Your task to perform on an android device: install app "Indeed Job Search" Image 0: 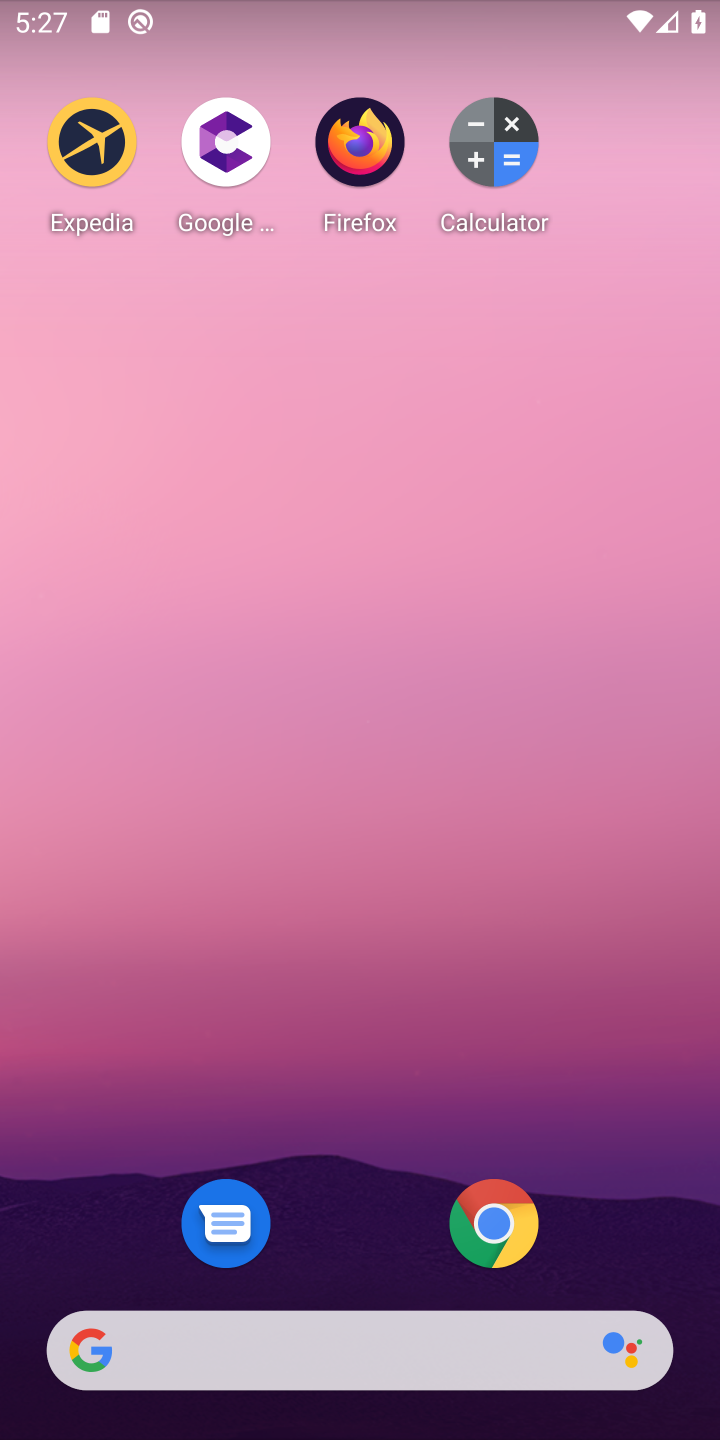
Step 0: drag from (375, 1330) to (362, 3)
Your task to perform on an android device: install app "Indeed Job Search" Image 1: 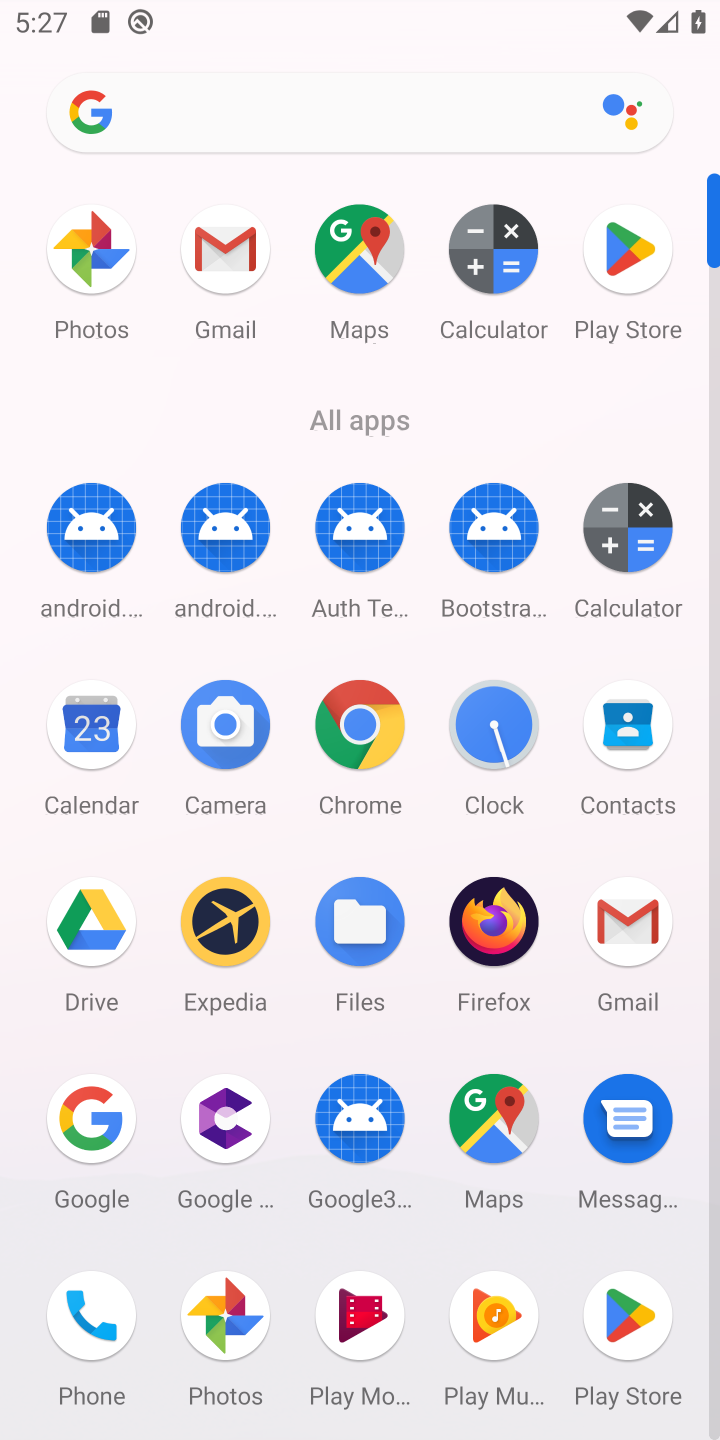
Step 1: click (641, 257)
Your task to perform on an android device: install app "Indeed Job Search" Image 2: 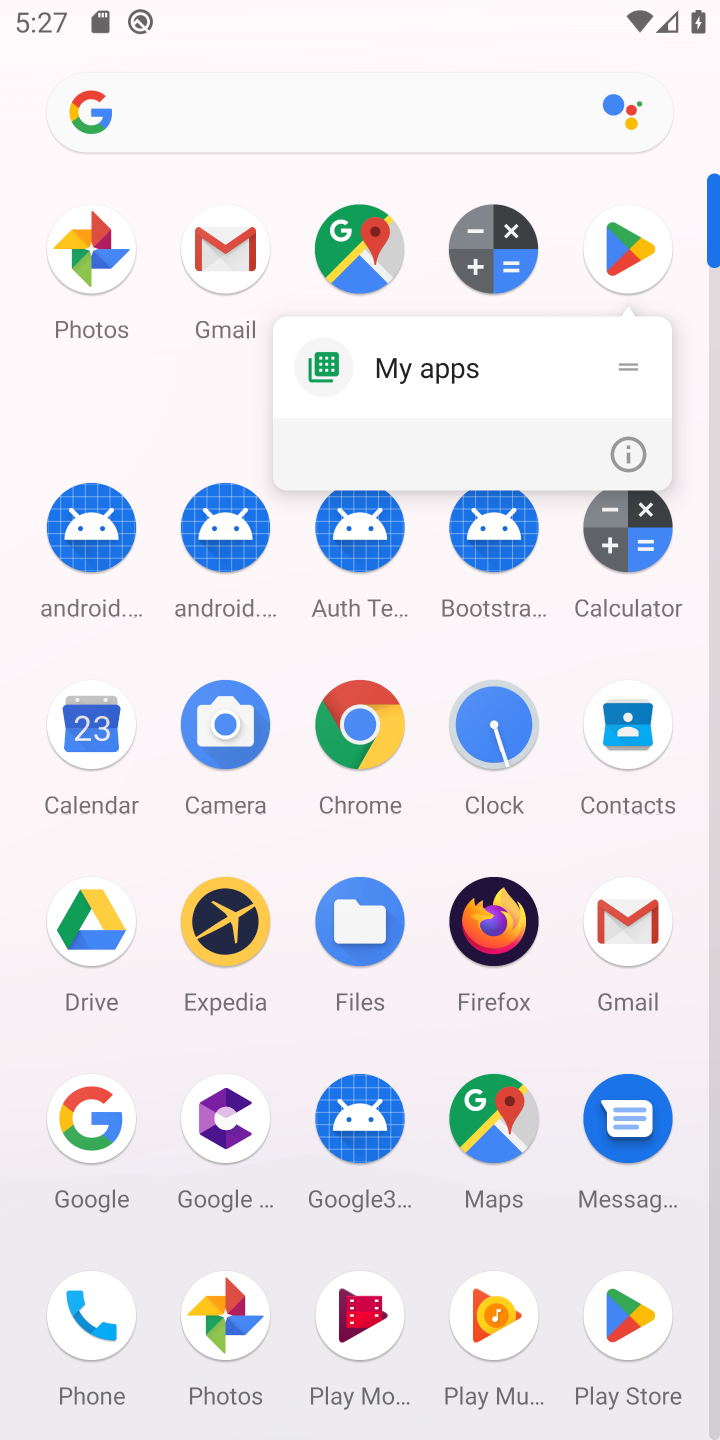
Step 2: click (635, 254)
Your task to perform on an android device: install app "Indeed Job Search" Image 3: 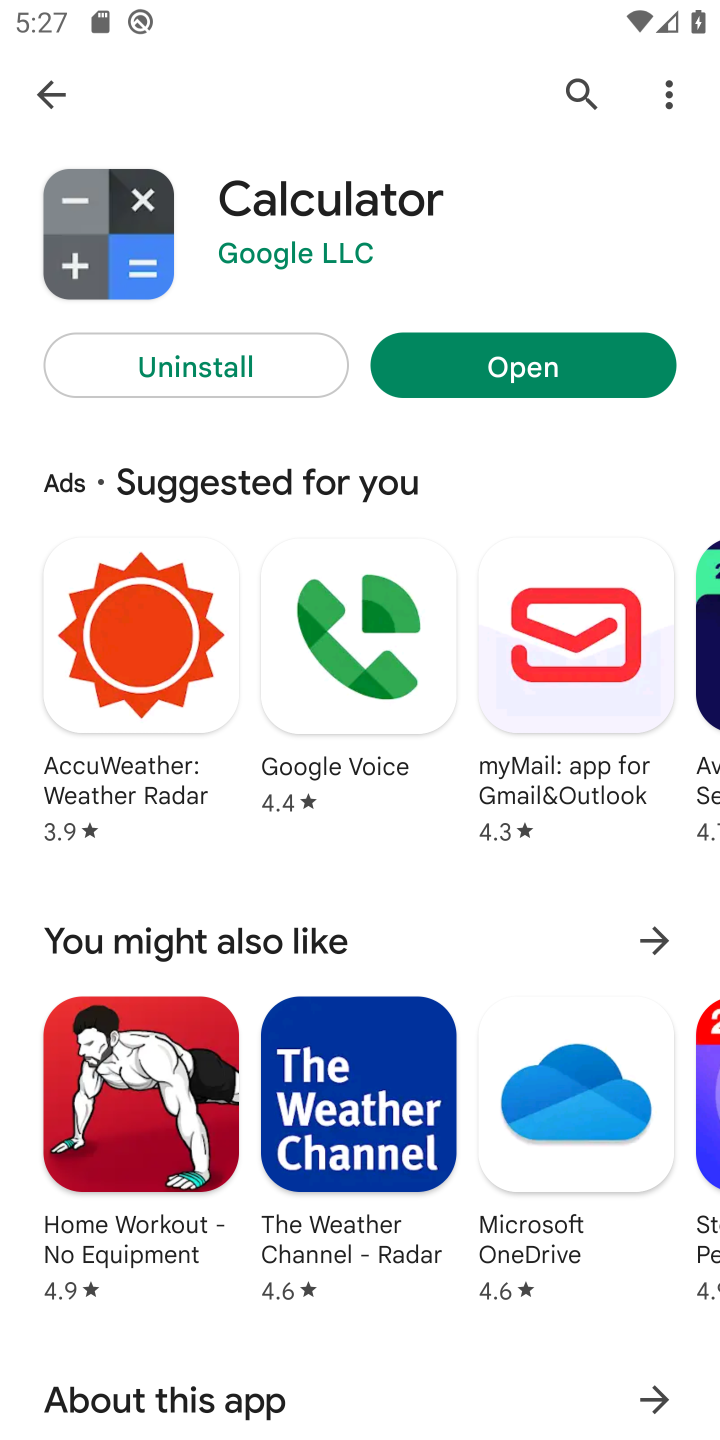
Step 3: click (579, 98)
Your task to perform on an android device: install app "Indeed Job Search" Image 4: 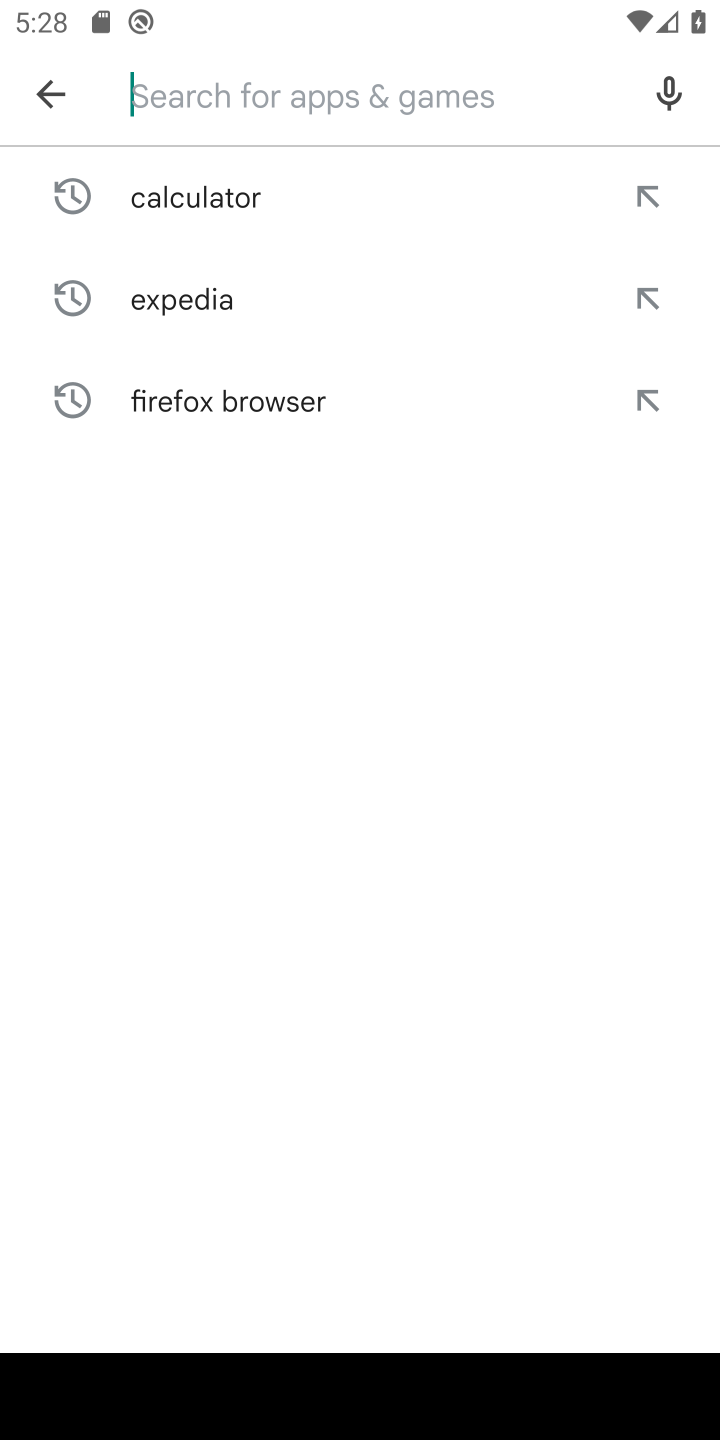
Step 4: type "indeed job search"
Your task to perform on an android device: install app "Indeed Job Search" Image 5: 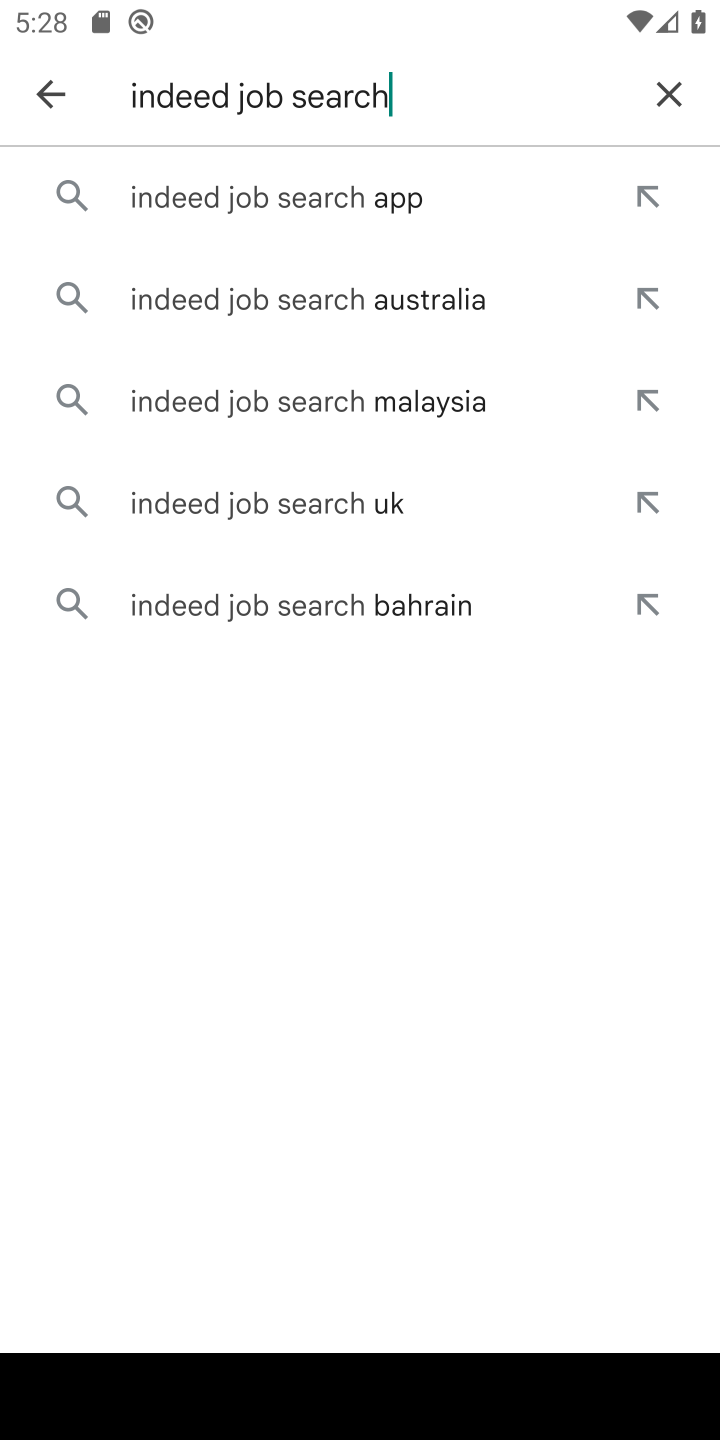
Step 5: click (247, 214)
Your task to perform on an android device: install app "Indeed Job Search" Image 6: 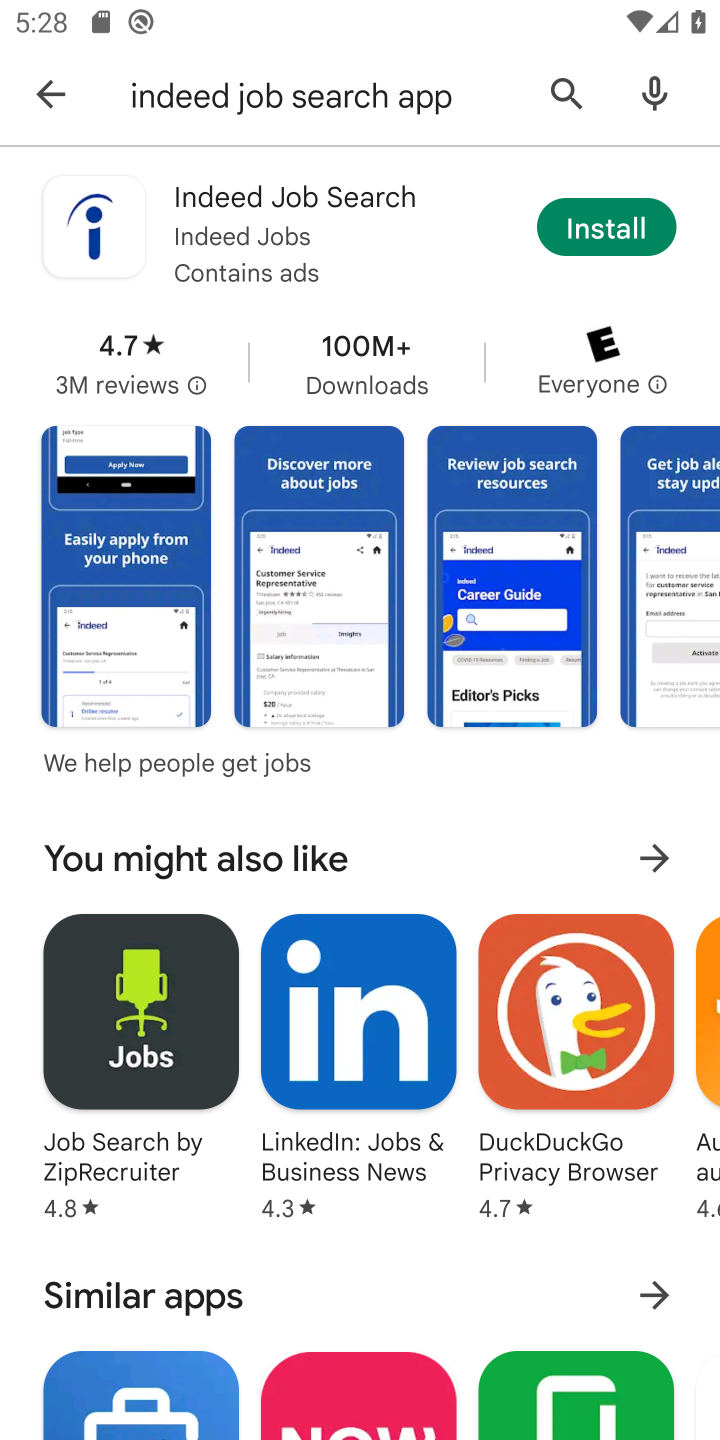
Step 6: click (606, 240)
Your task to perform on an android device: install app "Indeed Job Search" Image 7: 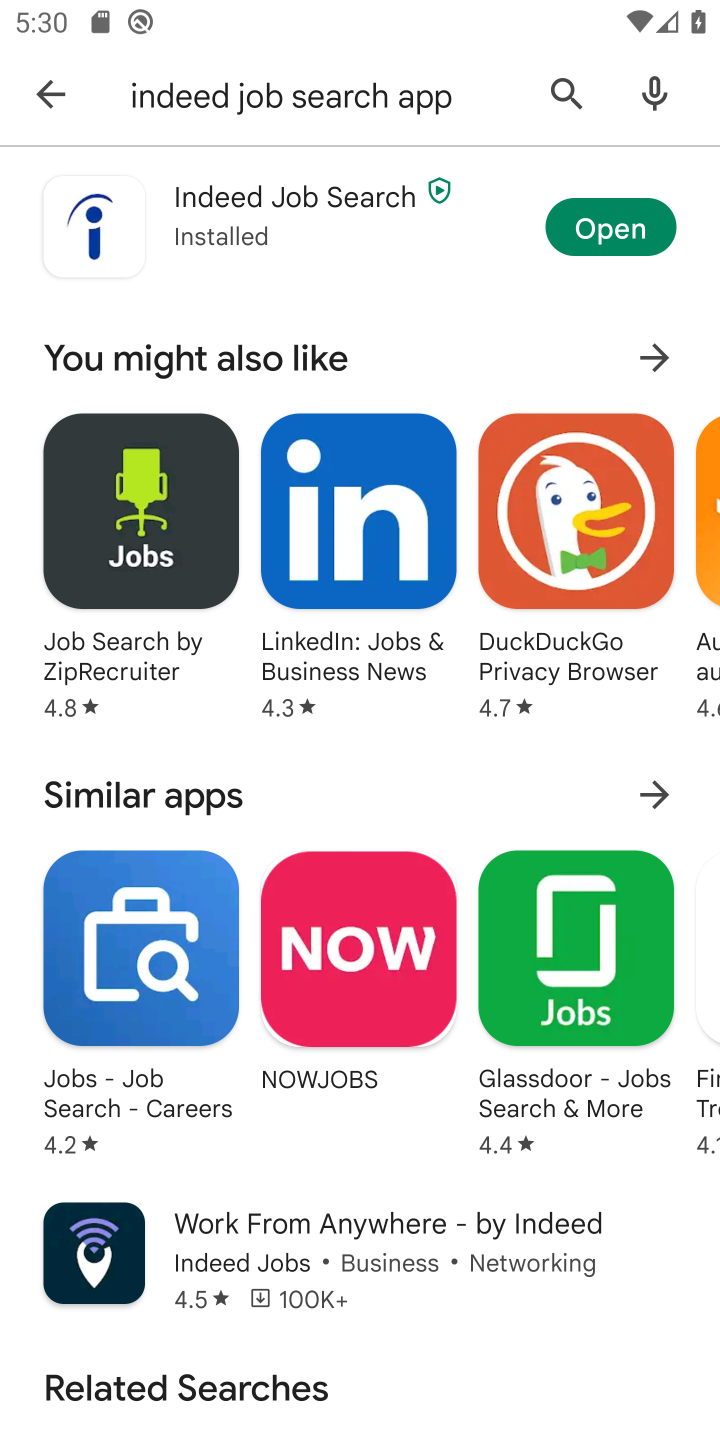
Step 7: task complete